Your task to perform on an android device: Open Amazon Image 0: 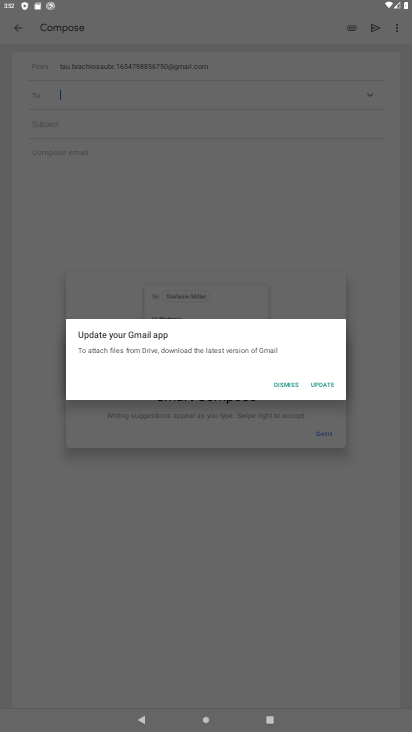
Step 0: press home button
Your task to perform on an android device: Open Amazon Image 1: 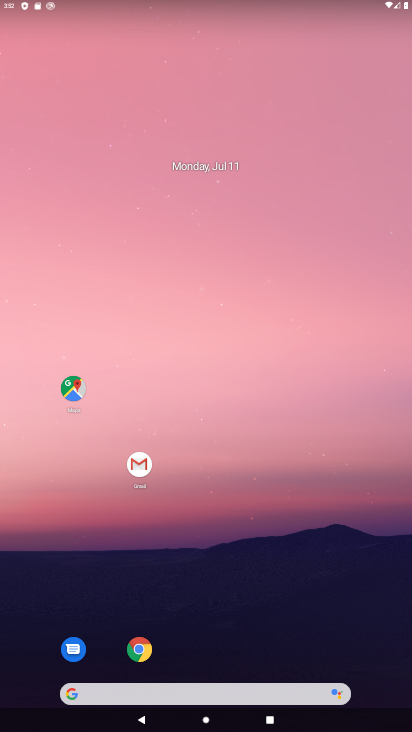
Step 1: click (116, 688)
Your task to perform on an android device: Open Amazon Image 2: 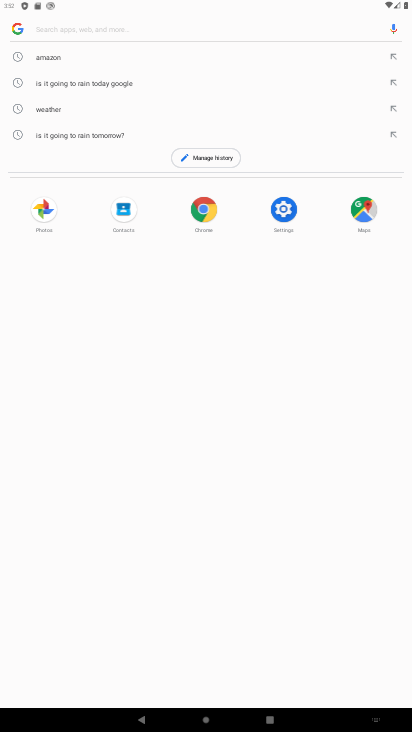
Step 2: type "Amazon"
Your task to perform on an android device: Open Amazon Image 3: 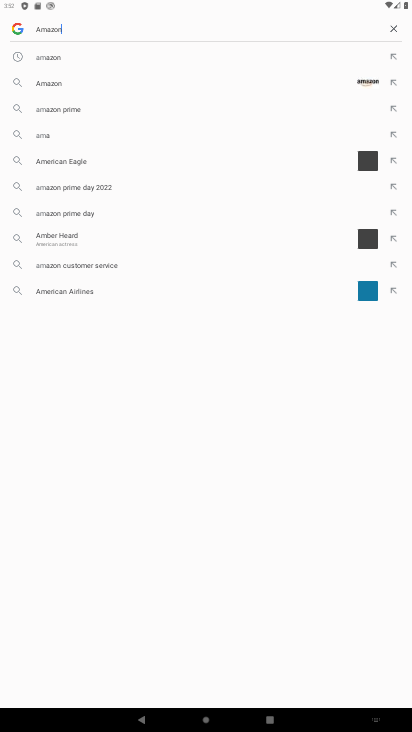
Step 3: type ""
Your task to perform on an android device: Open Amazon Image 4: 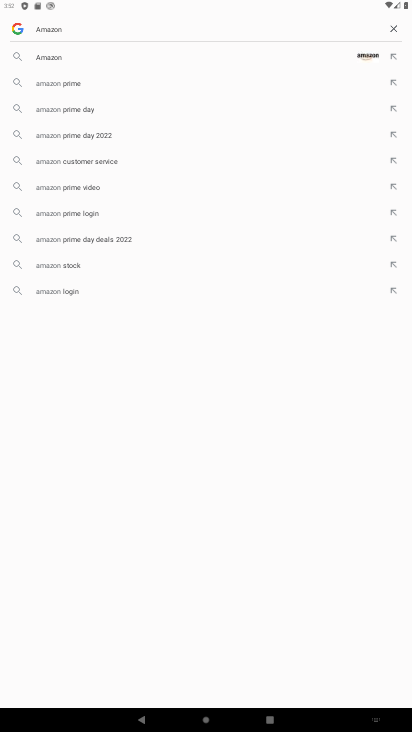
Step 4: click (54, 55)
Your task to perform on an android device: Open Amazon Image 5: 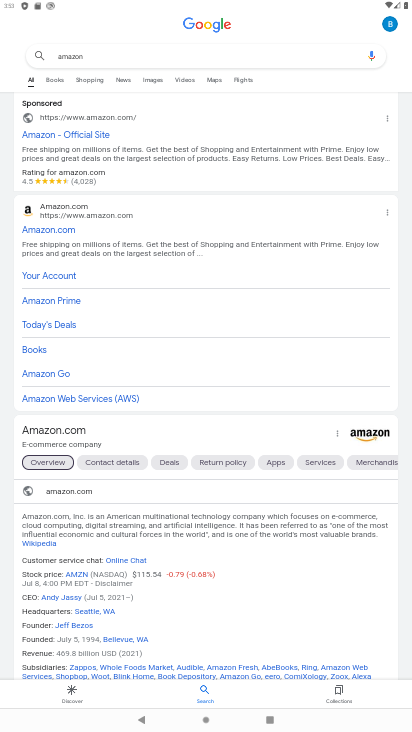
Step 5: task complete